Your task to perform on an android device: find snoozed emails in the gmail app Image 0: 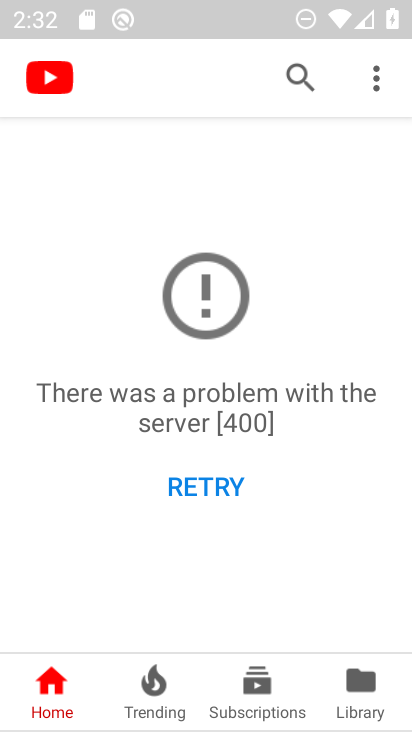
Step 0: press home button
Your task to perform on an android device: find snoozed emails in the gmail app Image 1: 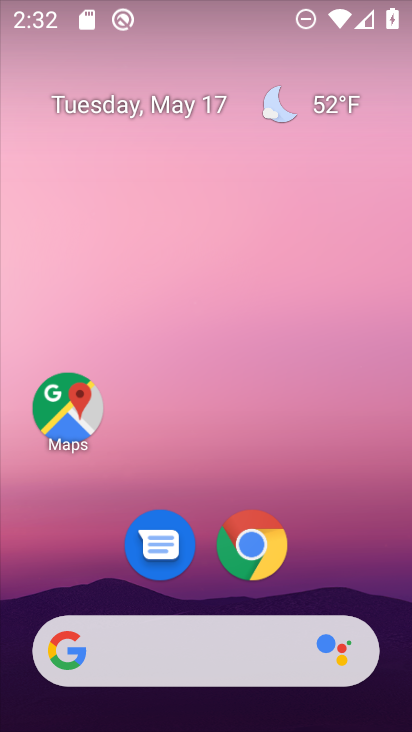
Step 1: drag from (348, 575) to (364, 129)
Your task to perform on an android device: find snoozed emails in the gmail app Image 2: 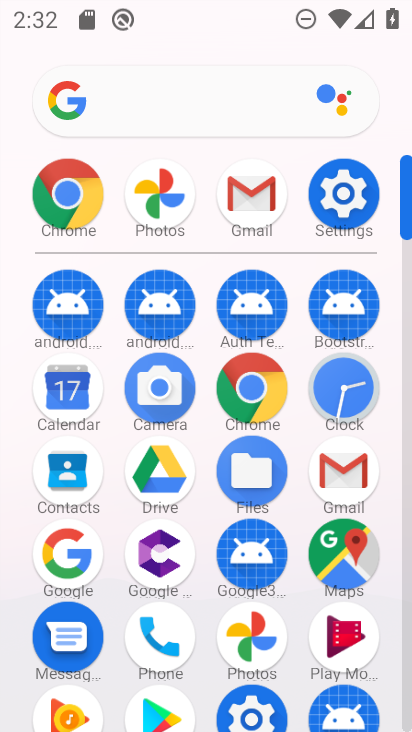
Step 2: click (357, 473)
Your task to perform on an android device: find snoozed emails in the gmail app Image 3: 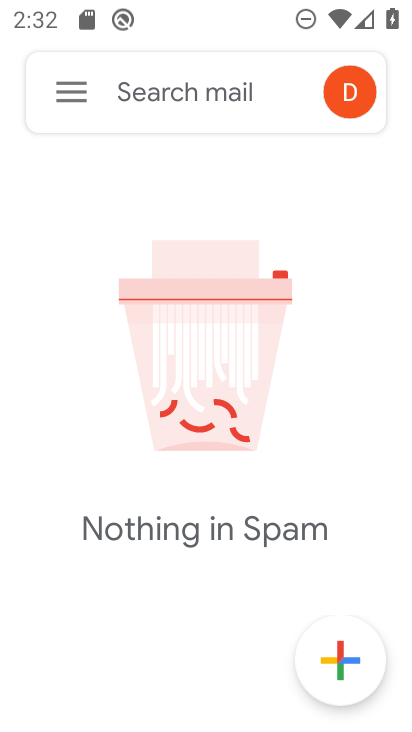
Step 3: click (74, 97)
Your task to perform on an android device: find snoozed emails in the gmail app Image 4: 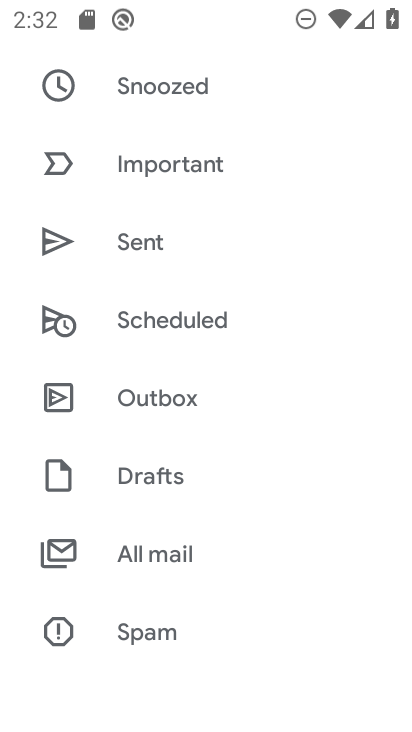
Step 4: drag from (320, 302) to (325, 413)
Your task to perform on an android device: find snoozed emails in the gmail app Image 5: 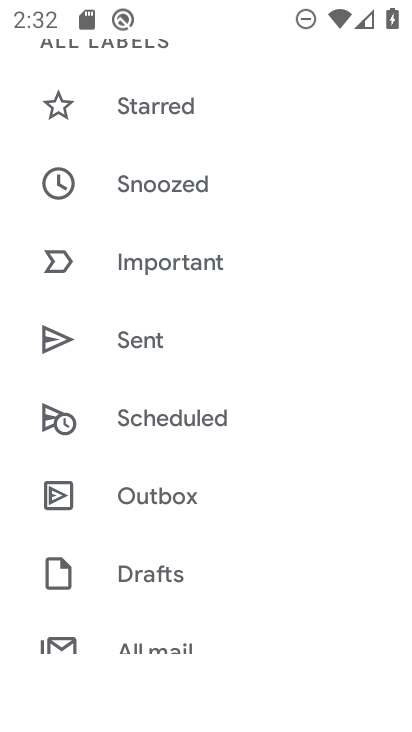
Step 5: drag from (341, 235) to (331, 359)
Your task to perform on an android device: find snoozed emails in the gmail app Image 6: 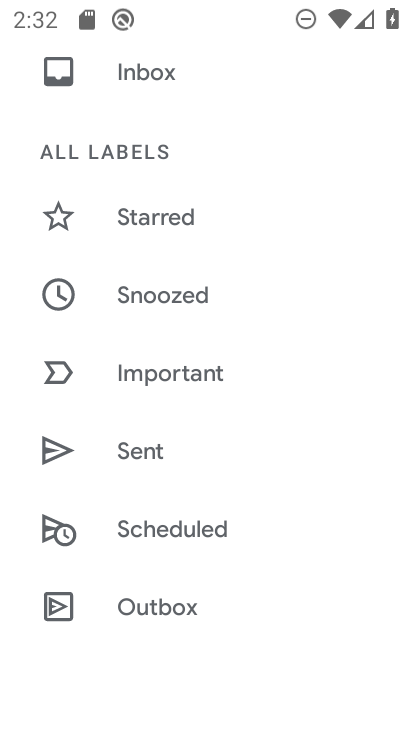
Step 6: drag from (341, 193) to (318, 348)
Your task to perform on an android device: find snoozed emails in the gmail app Image 7: 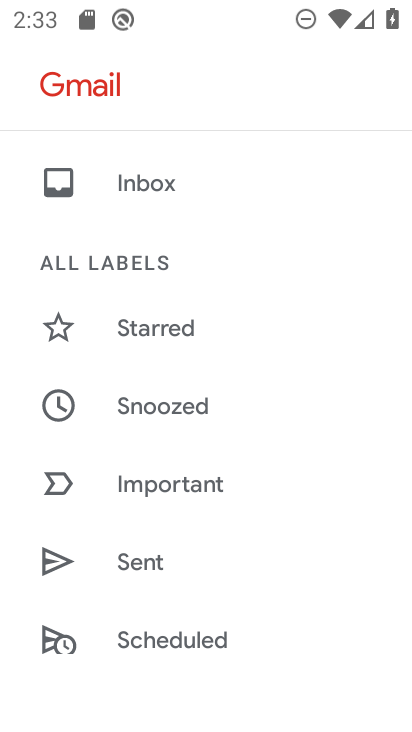
Step 7: drag from (318, 221) to (311, 365)
Your task to perform on an android device: find snoozed emails in the gmail app Image 8: 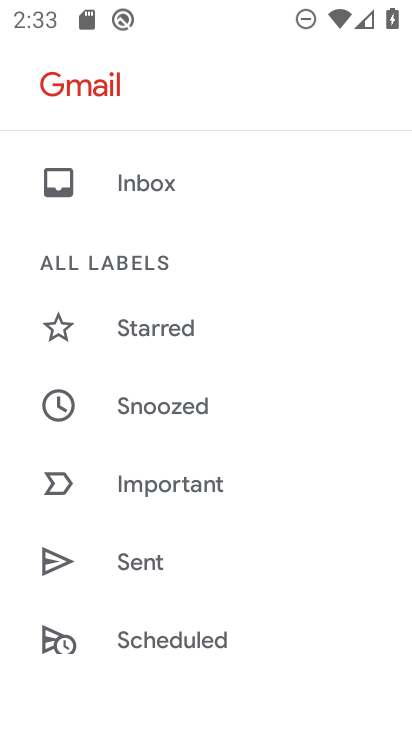
Step 8: drag from (313, 538) to (336, 407)
Your task to perform on an android device: find snoozed emails in the gmail app Image 9: 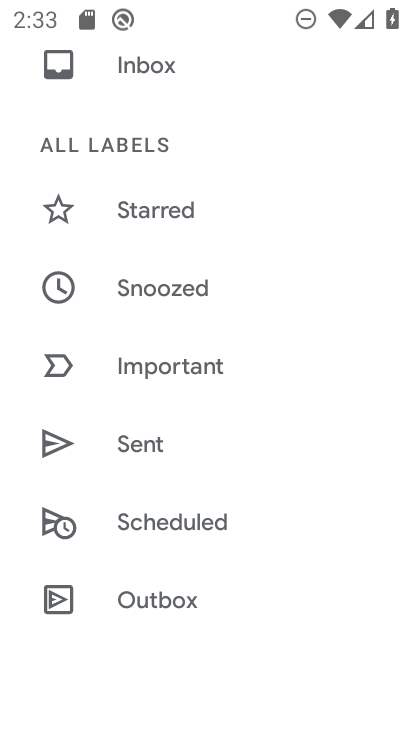
Step 9: drag from (325, 557) to (346, 422)
Your task to perform on an android device: find snoozed emails in the gmail app Image 10: 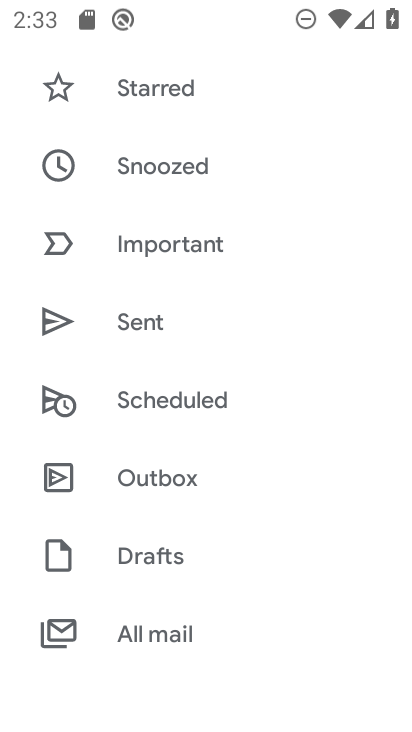
Step 10: drag from (339, 491) to (346, 447)
Your task to perform on an android device: find snoozed emails in the gmail app Image 11: 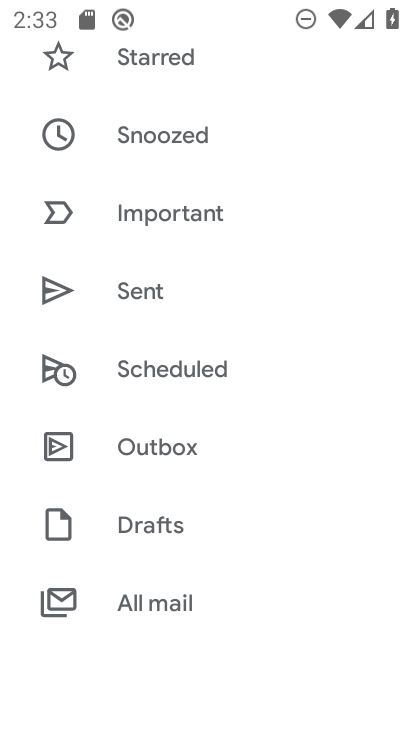
Step 11: drag from (324, 525) to (324, 405)
Your task to perform on an android device: find snoozed emails in the gmail app Image 12: 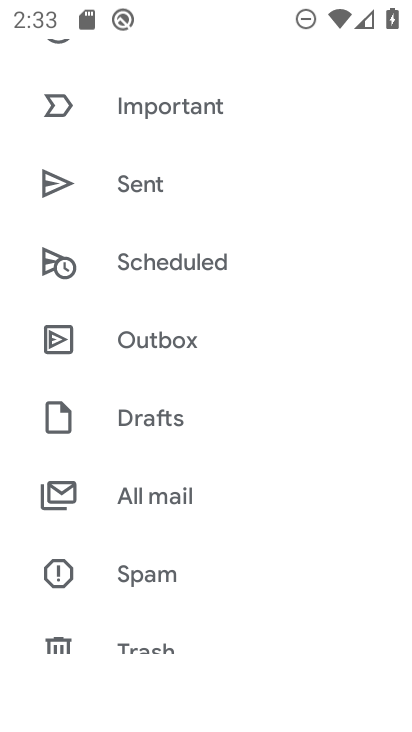
Step 12: drag from (316, 592) to (316, 450)
Your task to perform on an android device: find snoozed emails in the gmail app Image 13: 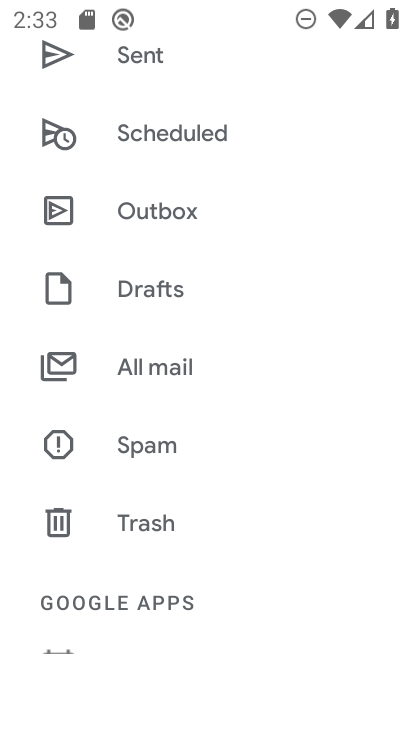
Step 13: drag from (295, 618) to (290, 453)
Your task to perform on an android device: find snoozed emails in the gmail app Image 14: 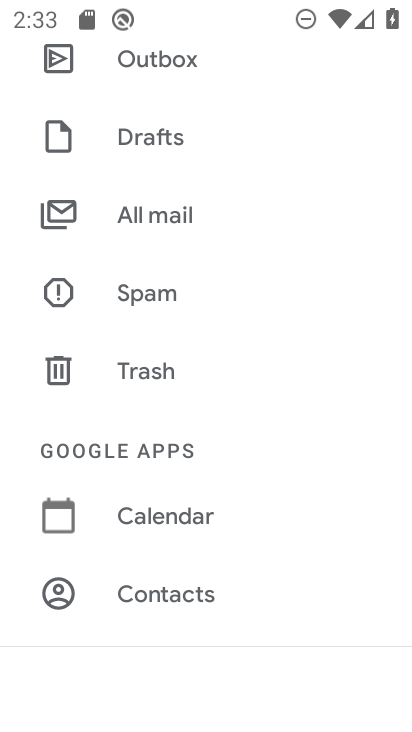
Step 14: drag from (292, 593) to (290, 458)
Your task to perform on an android device: find snoozed emails in the gmail app Image 15: 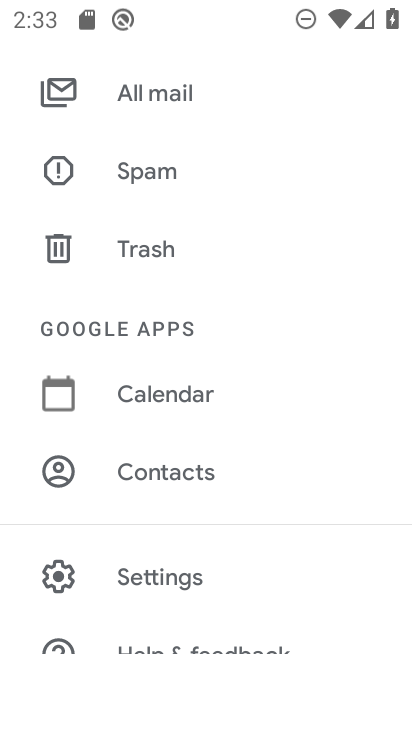
Step 15: drag from (270, 536) to (276, 359)
Your task to perform on an android device: find snoozed emails in the gmail app Image 16: 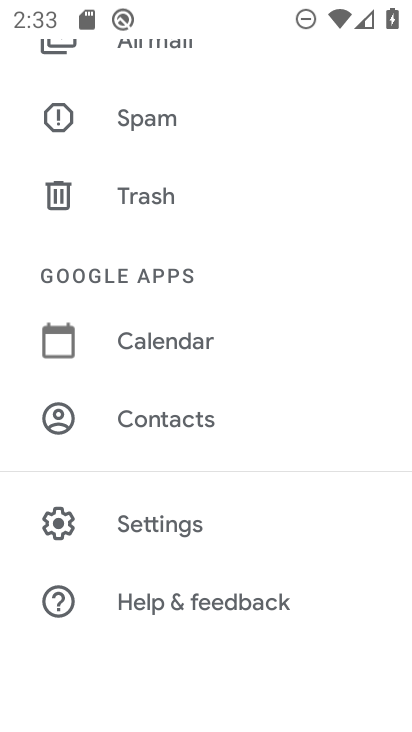
Step 16: drag from (295, 289) to (299, 444)
Your task to perform on an android device: find snoozed emails in the gmail app Image 17: 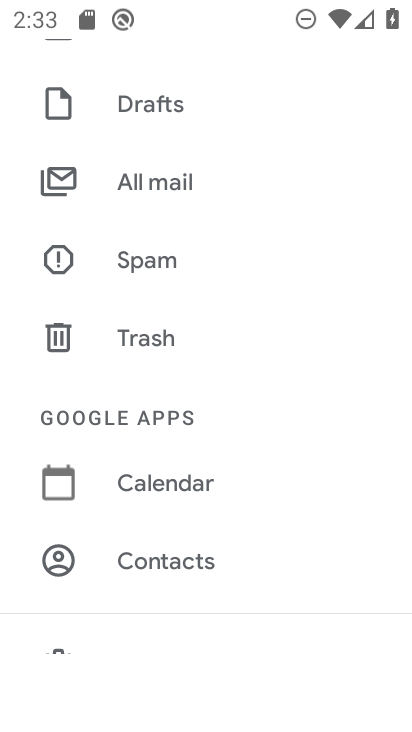
Step 17: drag from (296, 199) to (282, 406)
Your task to perform on an android device: find snoozed emails in the gmail app Image 18: 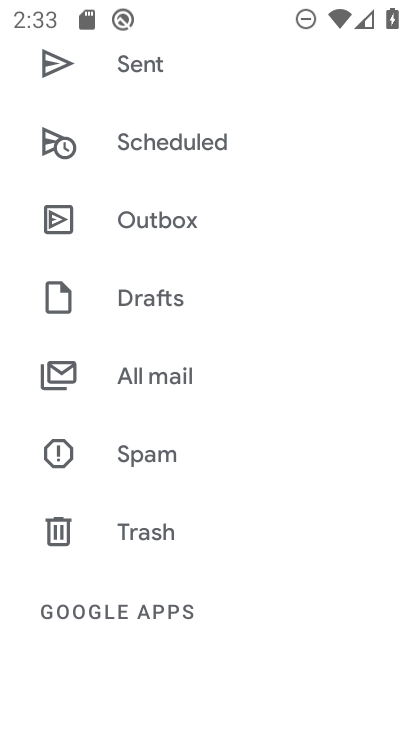
Step 18: drag from (312, 189) to (303, 365)
Your task to perform on an android device: find snoozed emails in the gmail app Image 19: 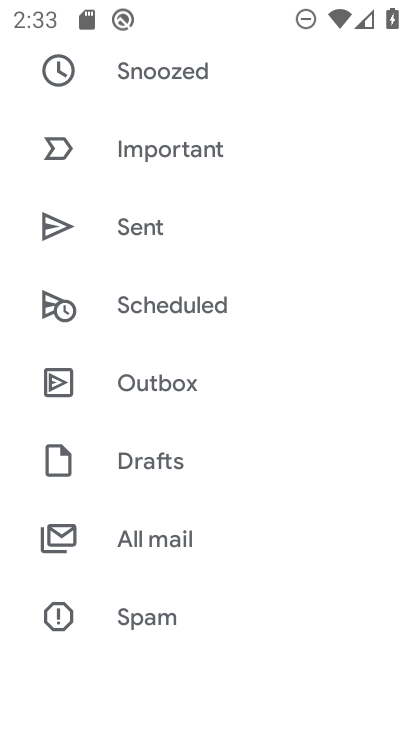
Step 19: drag from (316, 166) to (306, 325)
Your task to perform on an android device: find snoozed emails in the gmail app Image 20: 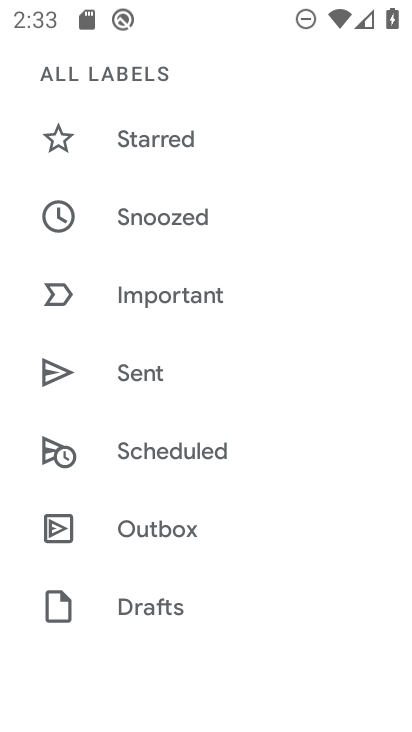
Step 20: click (186, 225)
Your task to perform on an android device: find snoozed emails in the gmail app Image 21: 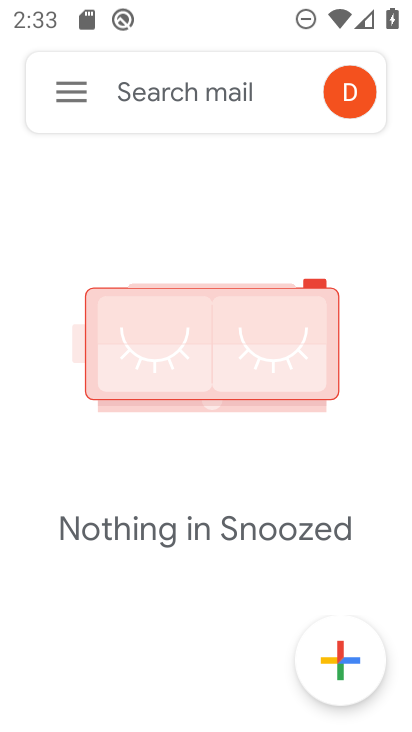
Step 21: task complete